Your task to perform on an android device: open app "Clock" Image 0: 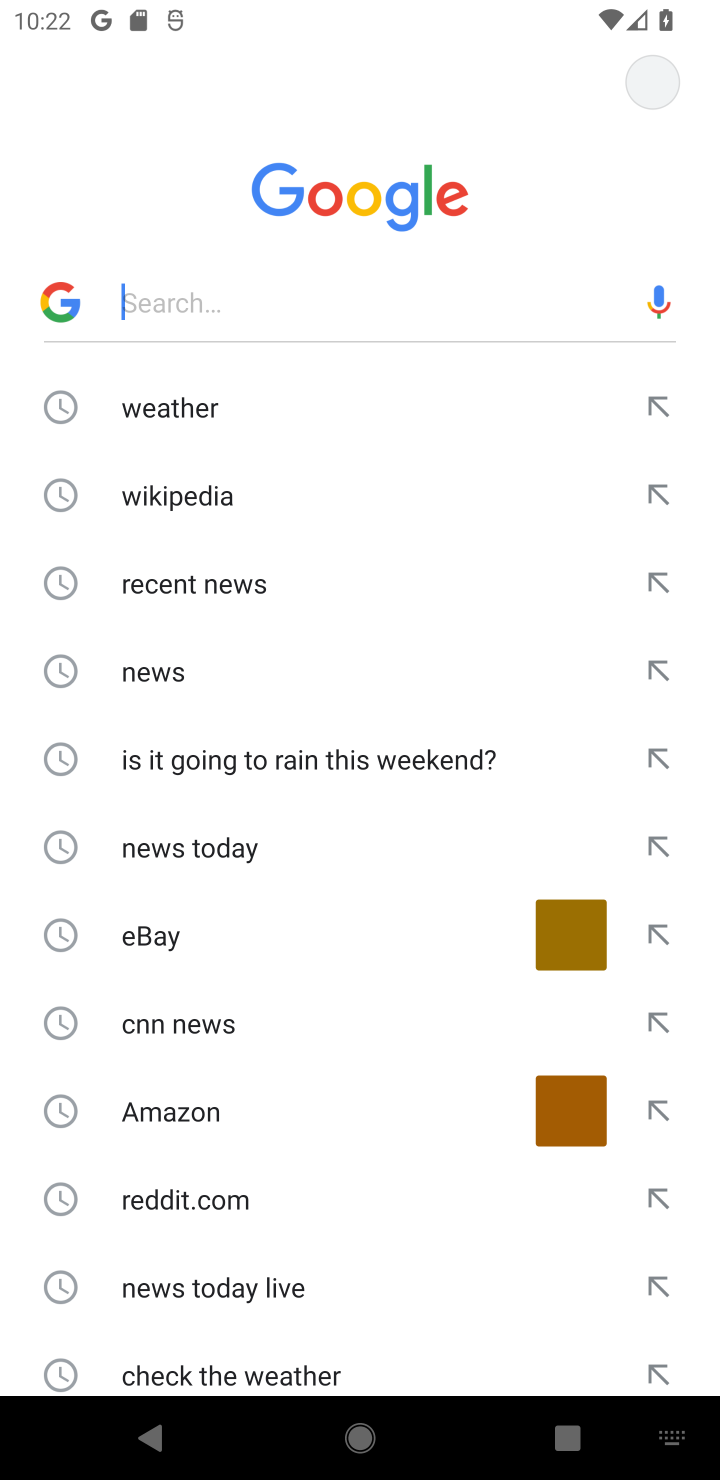
Step 0: press back button
Your task to perform on an android device: open app "Clock" Image 1: 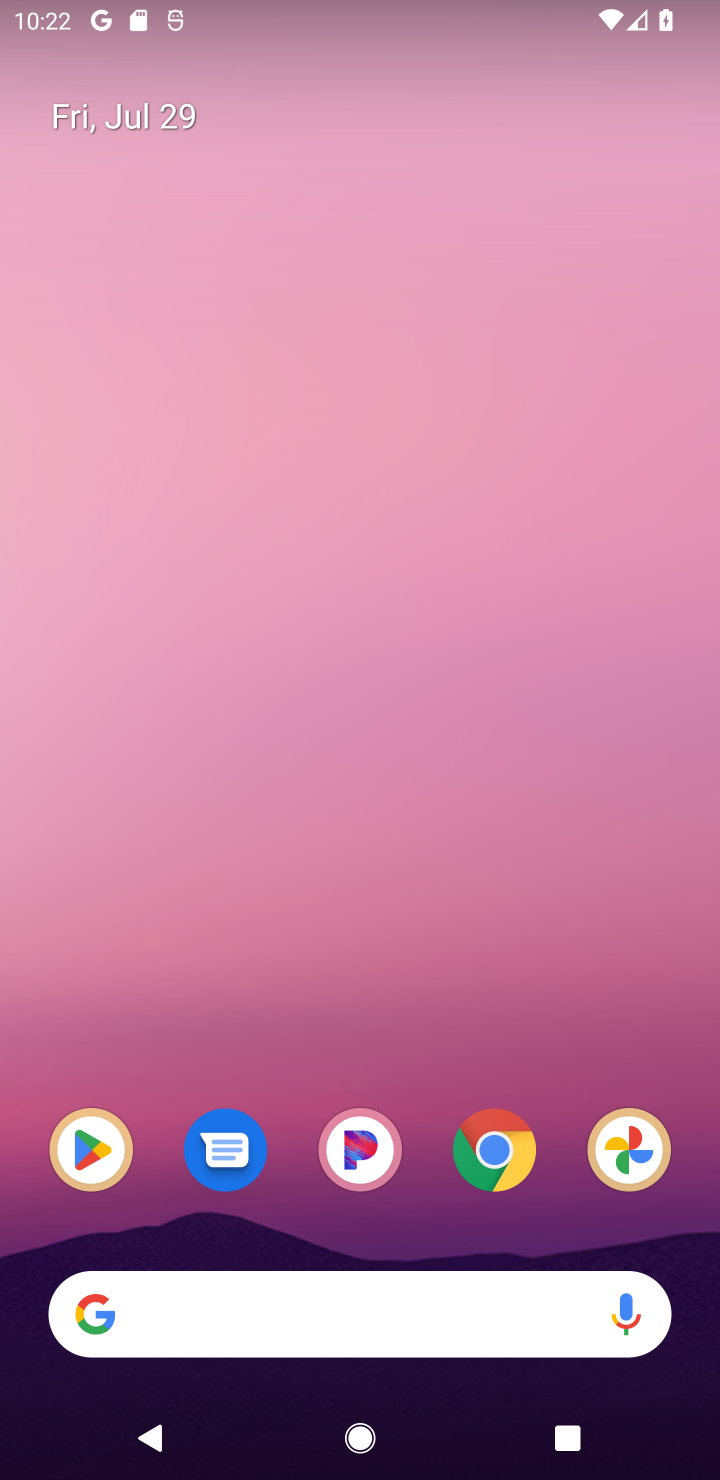
Step 1: drag from (245, 1158) to (554, 118)
Your task to perform on an android device: open app "Clock" Image 2: 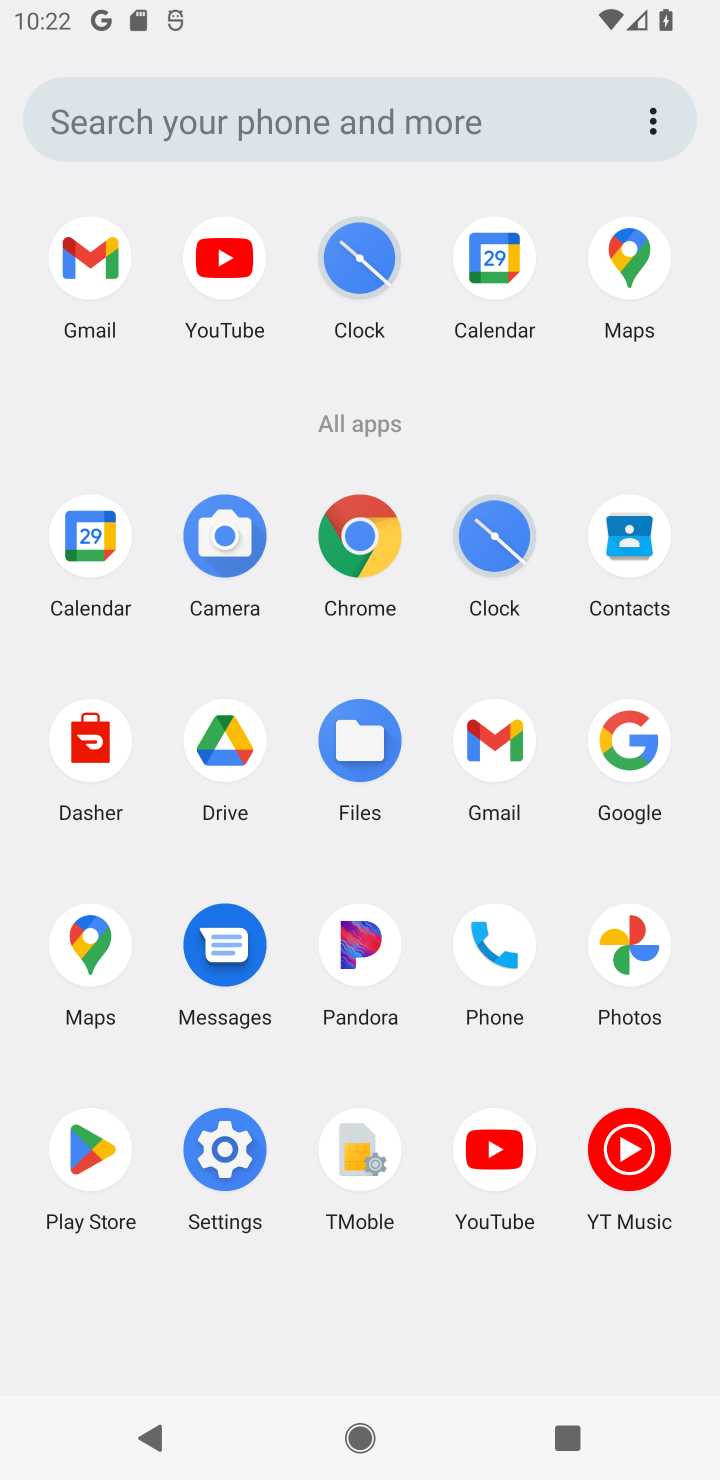
Step 2: click (500, 551)
Your task to perform on an android device: open app "Clock" Image 3: 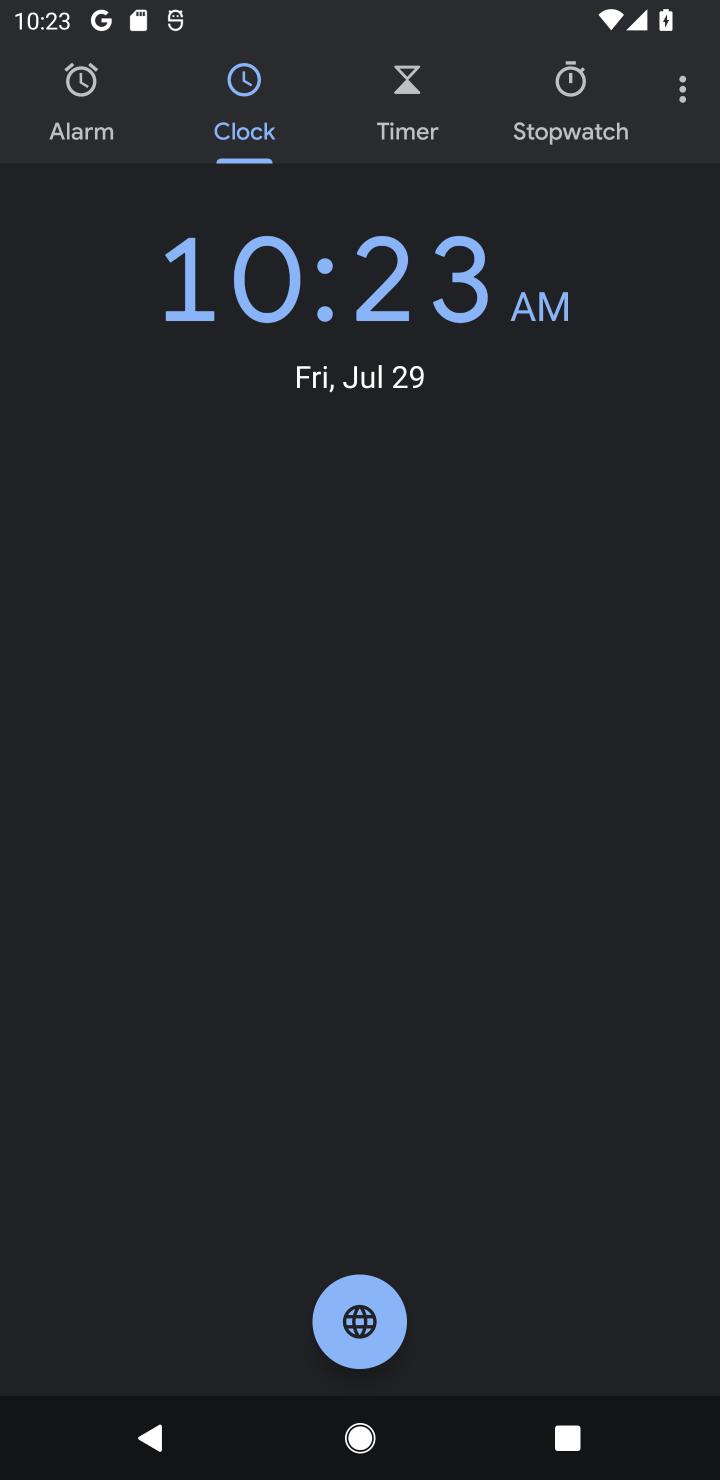
Step 3: task complete